Your task to perform on an android device: What's the weather? Image 0: 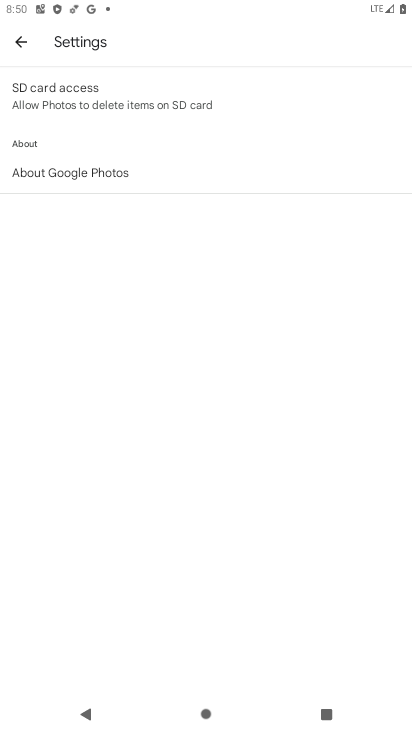
Step 0: press home button
Your task to perform on an android device: What's the weather? Image 1: 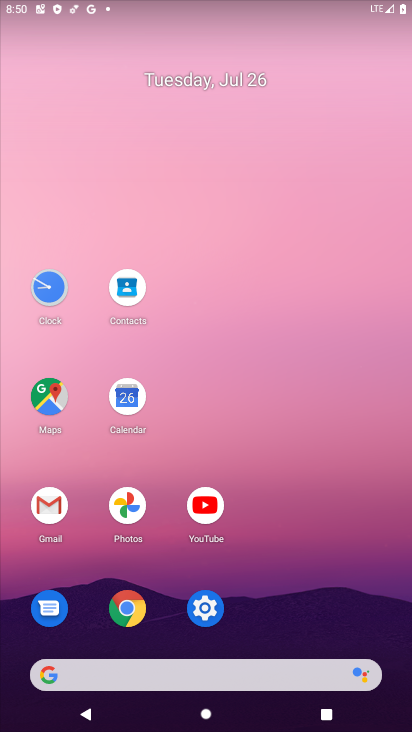
Step 1: click (145, 672)
Your task to perform on an android device: What's the weather? Image 2: 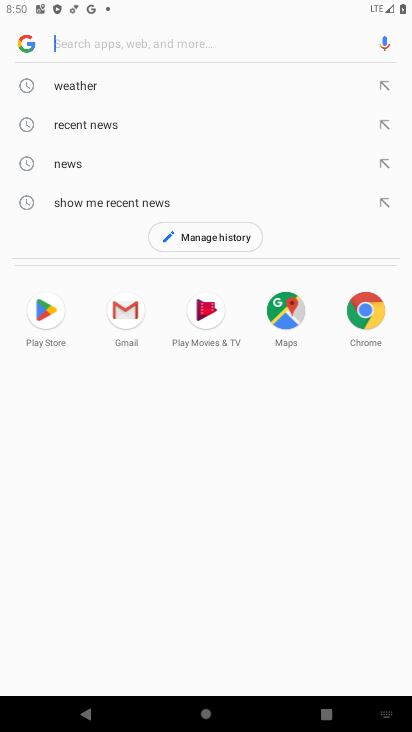
Step 2: click (74, 79)
Your task to perform on an android device: What's the weather? Image 3: 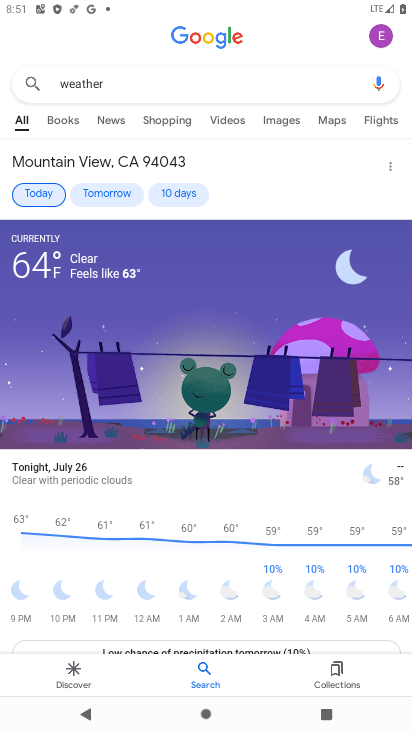
Step 3: task complete